Your task to perform on an android device: turn pop-ups off in chrome Image 0: 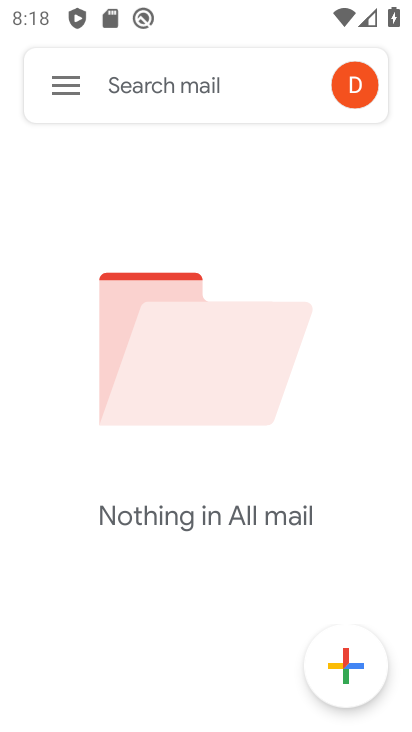
Step 0: press home button
Your task to perform on an android device: turn pop-ups off in chrome Image 1: 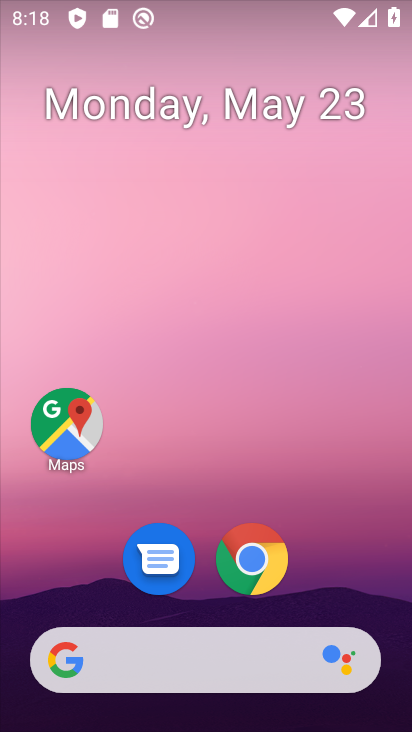
Step 1: click (271, 555)
Your task to perform on an android device: turn pop-ups off in chrome Image 2: 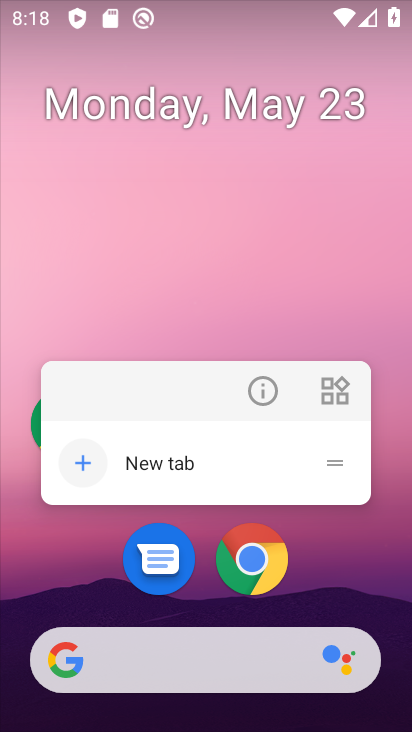
Step 2: click (259, 556)
Your task to perform on an android device: turn pop-ups off in chrome Image 3: 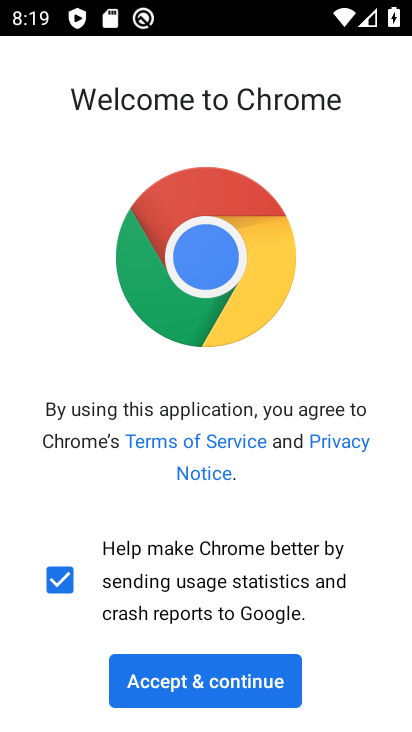
Step 3: drag from (259, 558) to (218, 696)
Your task to perform on an android device: turn pop-ups off in chrome Image 4: 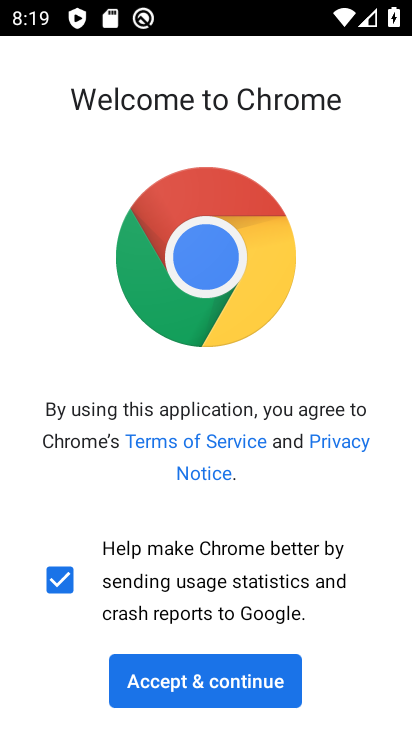
Step 4: click (125, 676)
Your task to perform on an android device: turn pop-ups off in chrome Image 5: 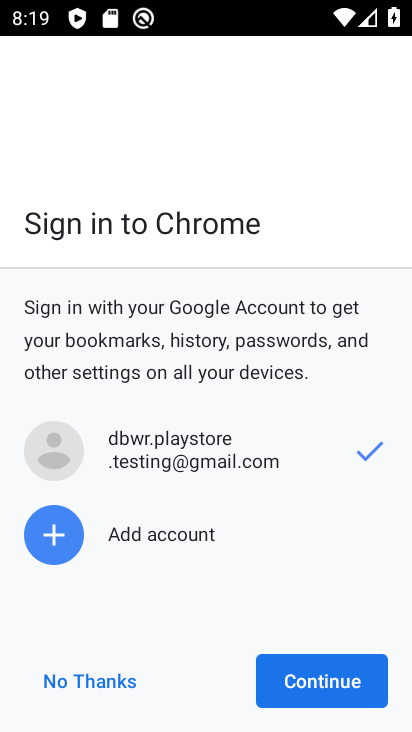
Step 5: click (331, 669)
Your task to perform on an android device: turn pop-ups off in chrome Image 6: 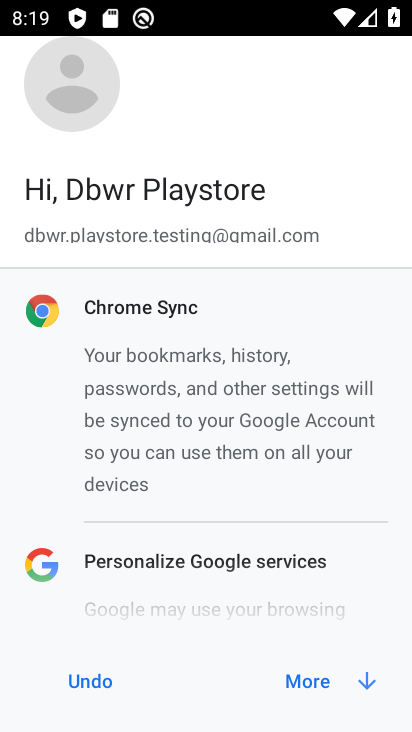
Step 6: click (324, 682)
Your task to perform on an android device: turn pop-ups off in chrome Image 7: 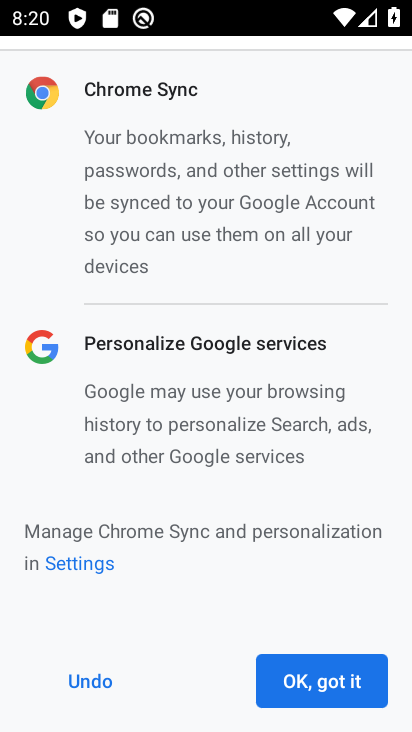
Step 7: click (343, 692)
Your task to perform on an android device: turn pop-ups off in chrome Image 8: 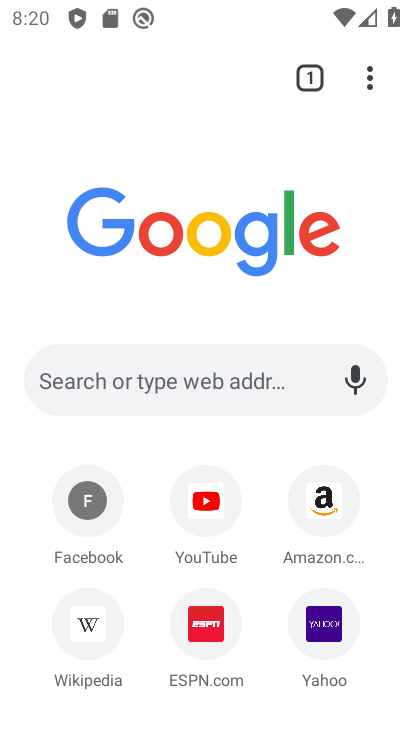
Step 8: click (365, 75)
Your task to perform on an android device: turn pop-ups off in chrome Image 9: 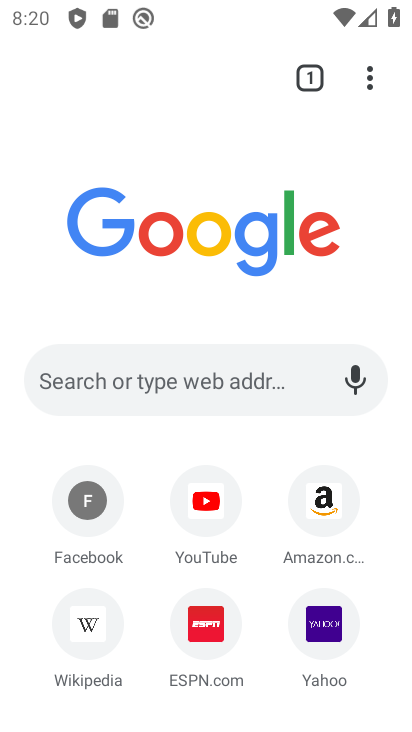
Step 9: click (363, 81)
Your task to perform on an android device: turn pop-ups off in chrome Image 10: 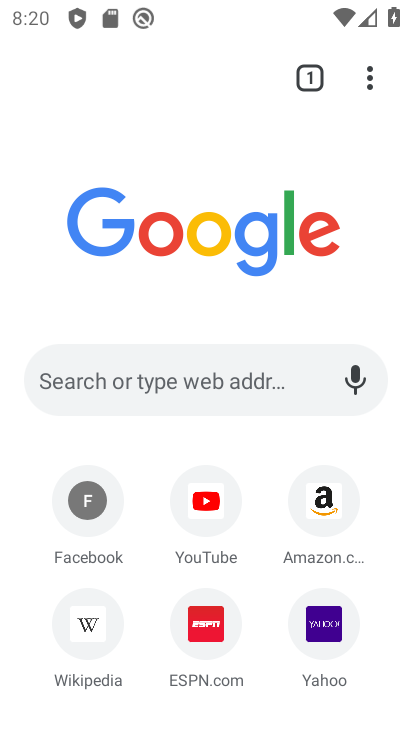
Step 10: click (360, 90)
Your task to perform on an android device: turn pop-ups off in chrome Image 11: 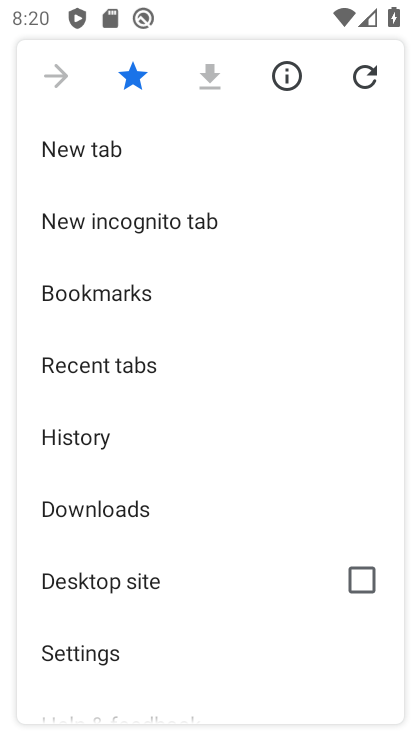
Step 11: click (127, 646)
Your task to perform on an android device: turn pop-ups off in chrome Image 12: 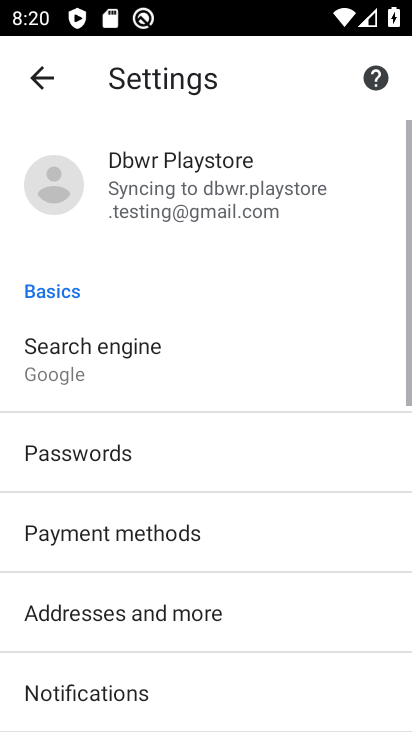
Step 12: drag from (208, 626) to (205, 221)
Your task to perform on an android device: turn pop-ups off in chrome Image 13: 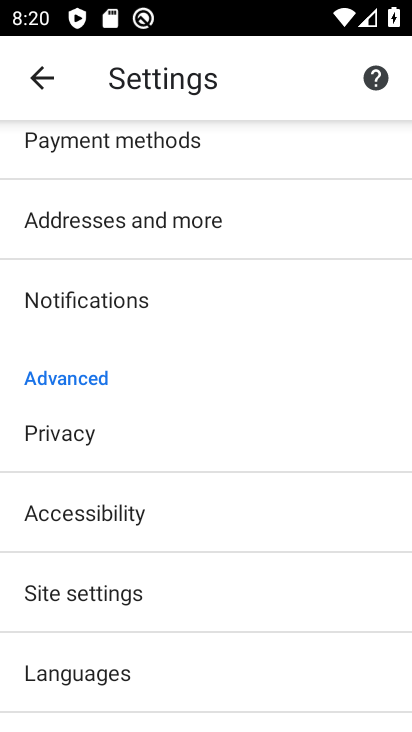
Step 13: click (169, 589)
Your task to perform on an android device: turn pop-ups off in chrome Image 14: 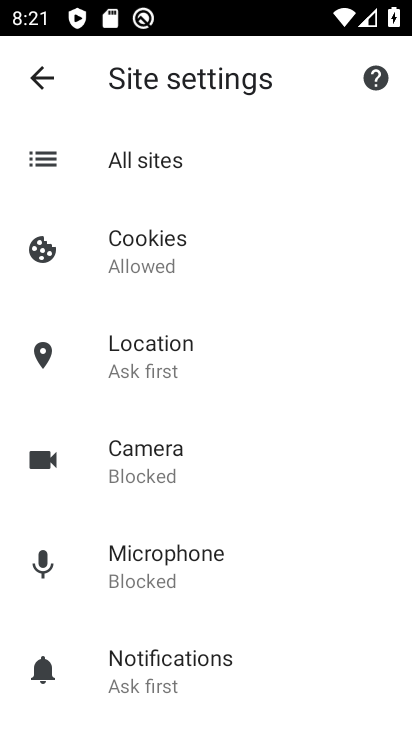
Step 14: drag from (172, 669) to (127, 248)
Your task to perform on an android device: turn pop-ups off in chrome Image 15: 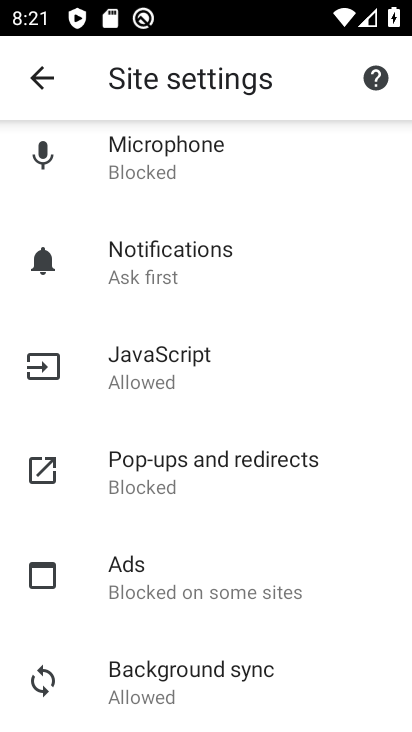
Step 15: click (169, 450)
Your task to perform on an android device: turn pop-ups off in chrome Image 16: 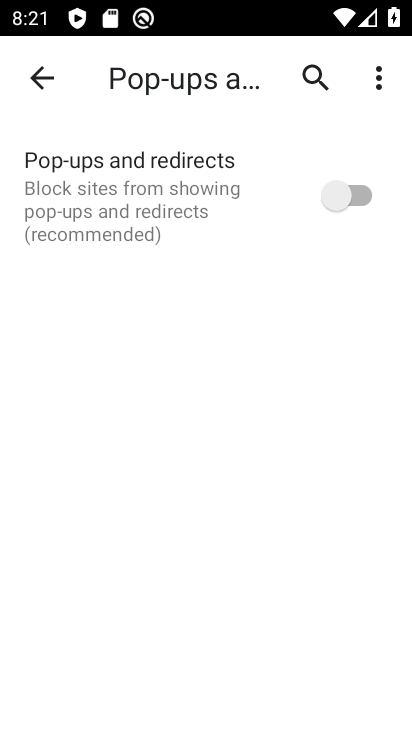
Step 16: task complete